Your task to perform on an android device: Open Google Chrome and open the bookmarks view Image 0: 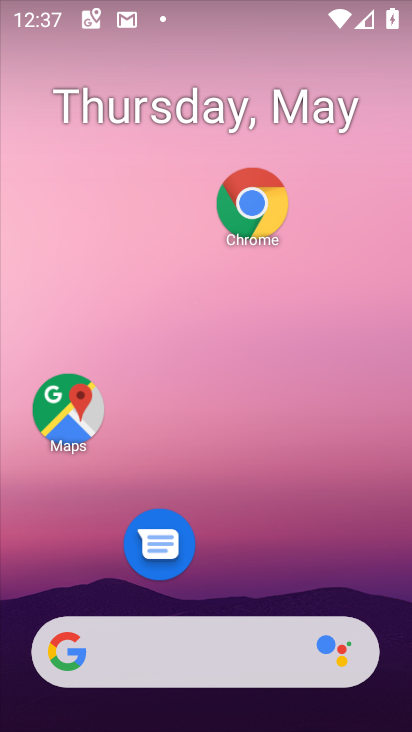
Step 0: drag from (179, 721) to (99, 29)
Your task to perform on an android device: Open Google Chrome and open the bookmarks view Image 1: 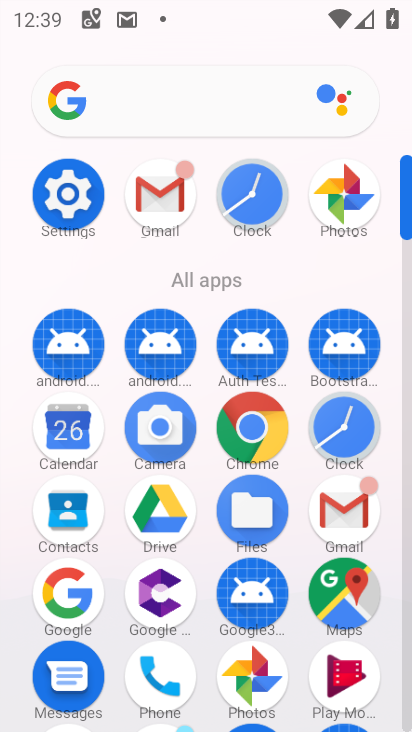
Step 1: click (248, 430)
Your task to perform on an android device: Open Google Chrome and open the bookmarks view Image 2: 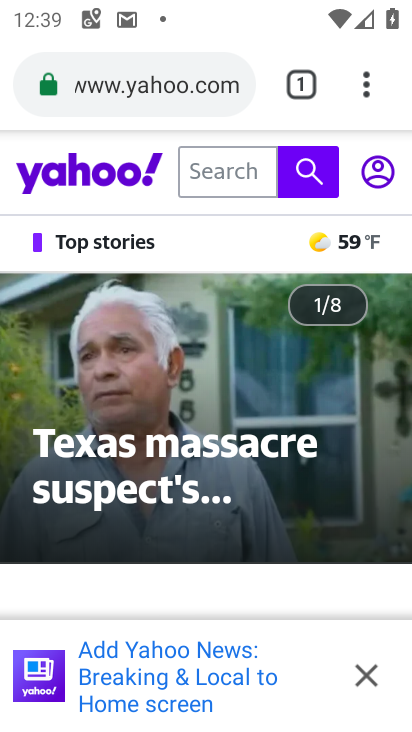
Step 2: click (361, 90)
Your task to perform on an android device: Open Google Chrome and open the bookmarks view Image 3: 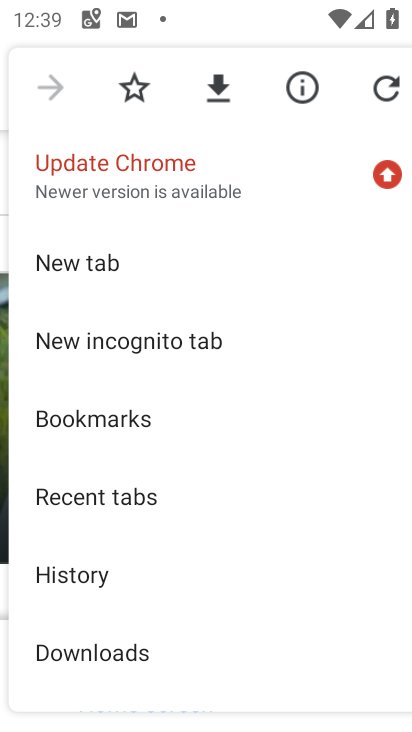
Step 3: drag from (98, 638) to (174, 231)
Your task to perform on an android device: Open Google Chrome and open the bookmarks view Image 4: 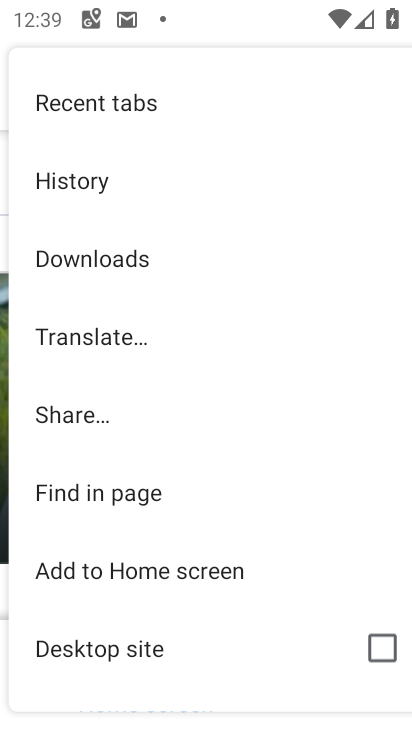
Step 4: drag from (225, 646) to (303, 77)
Your task to perform on an android device: Open Google Chrome and open the bookmarks view Image 5: 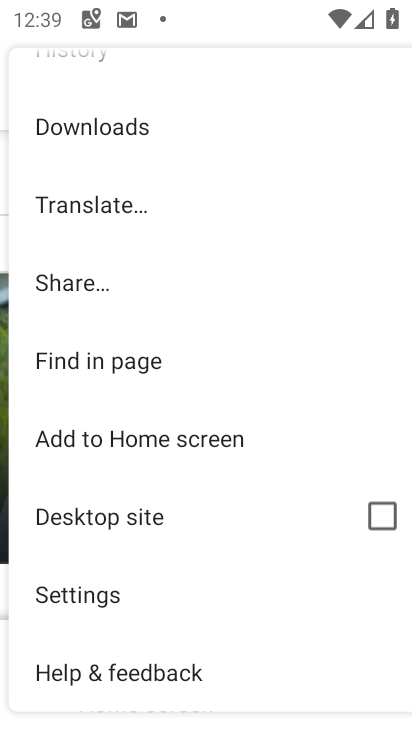
Step 5: drag from (154, 147) to (127, 729)
Your task to perform on an android device: Open Google Chrome and open the bookmarks view Image 6: 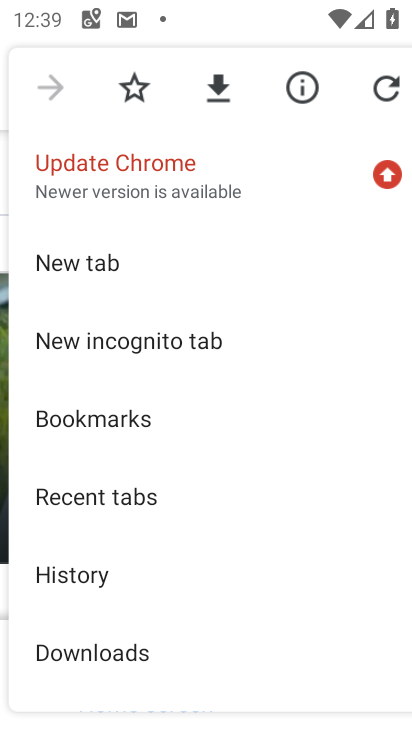
Step 6: click (114, 426)
Your task to perform on an android device: Open Google Chrome and open the bookmarks view Image 7: 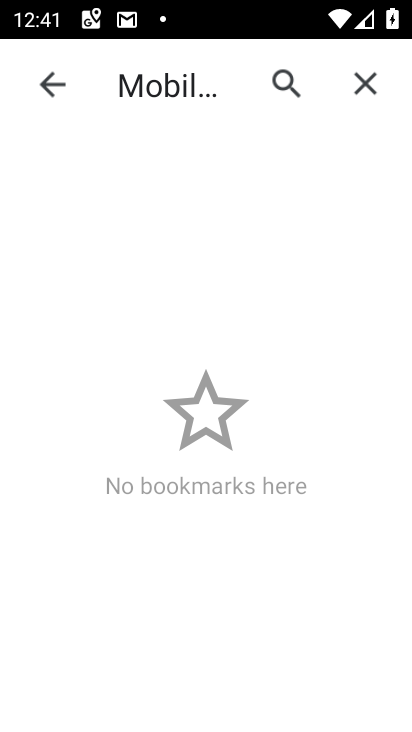
Step 7: task complete